Your task to perform on an android device: toggle data saver in the chrome app Image 0: 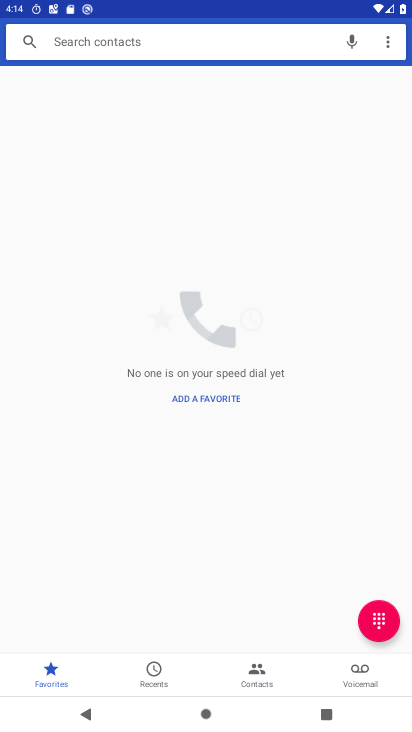
Step 0: press home button
Your task to perform on an android device: toggle data saver in the chrome app Image 1: 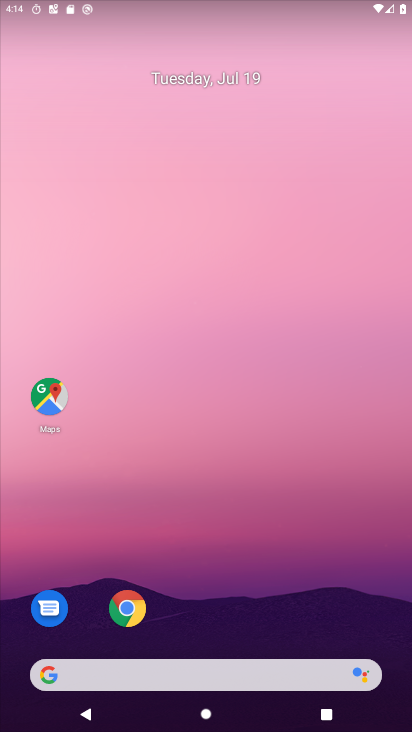
Step 1: click (126, 610)
Your task to perform on an android device: toggle data saver in the chrome app Image 2: 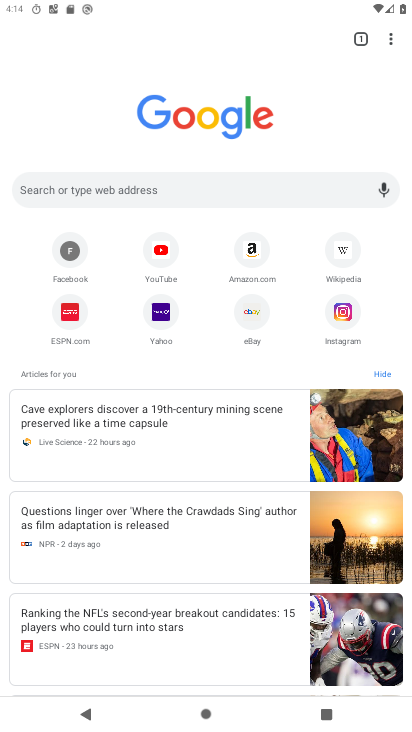
Step 2: click (391, 38)
Your task to perform on an android device: toggle data saver in the chrome app Image 3: 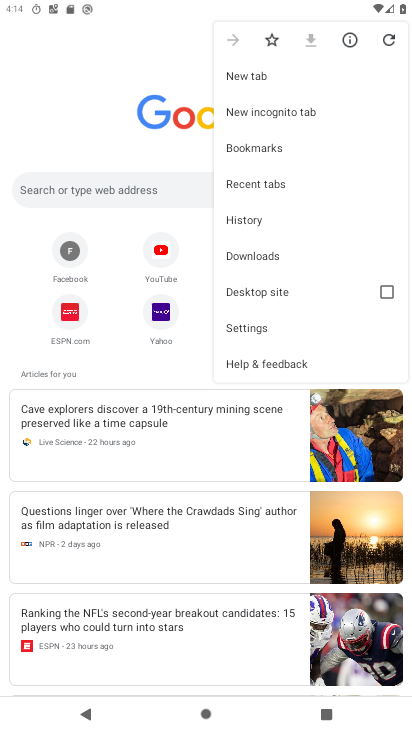
Step 3: click (257, 327)
Your task to perform on an android device: toggle data saver in the chrome app Image 4: 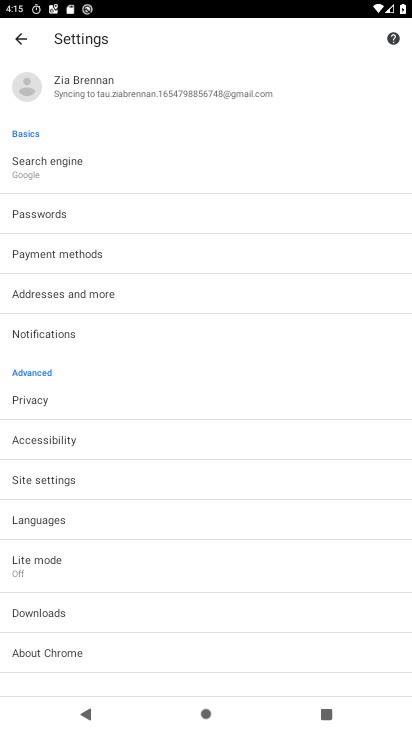
Step 4: click (45, 563)
Your task to perform on an android device: toggle data saver in the chrome app Image 5: 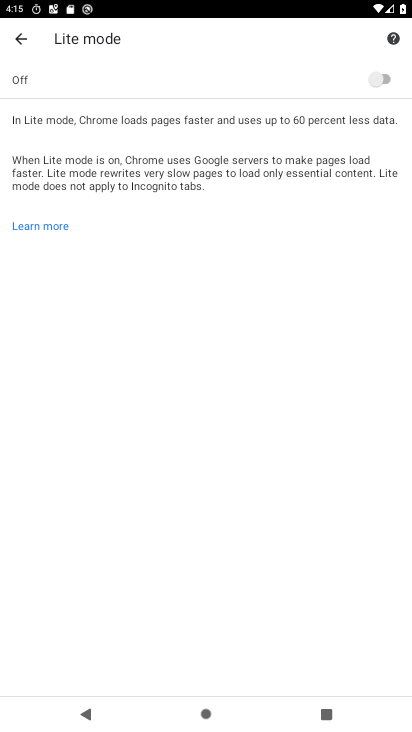
Step 5: click (381, 79)
Your task to perform on an android device: toggle data saver in the chrome app Image 6: 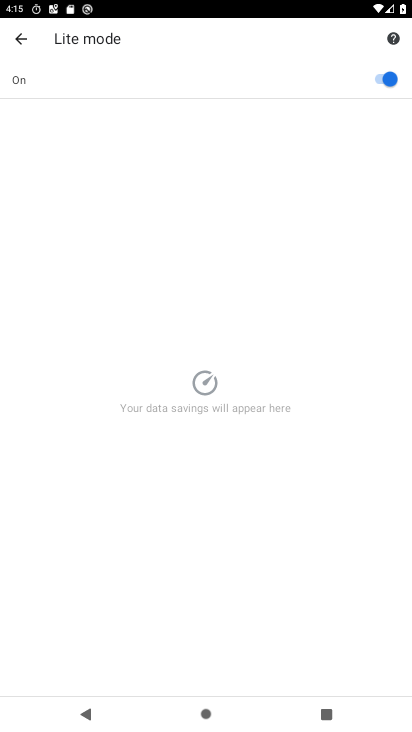
Step 6: task complete